Your task to perform on an android device: Play the last video I watched on Youtube Image 0: 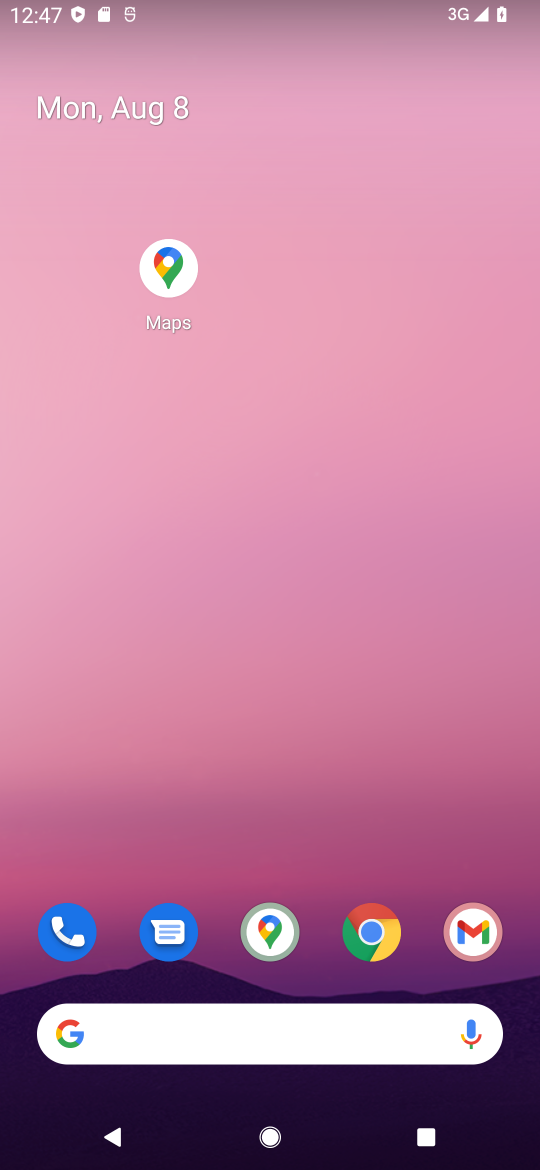
Step 0: drag from (324, 894) to (358, 312)
Your task to perform on an android device: Play the last video I watched on Youtube Image 1: 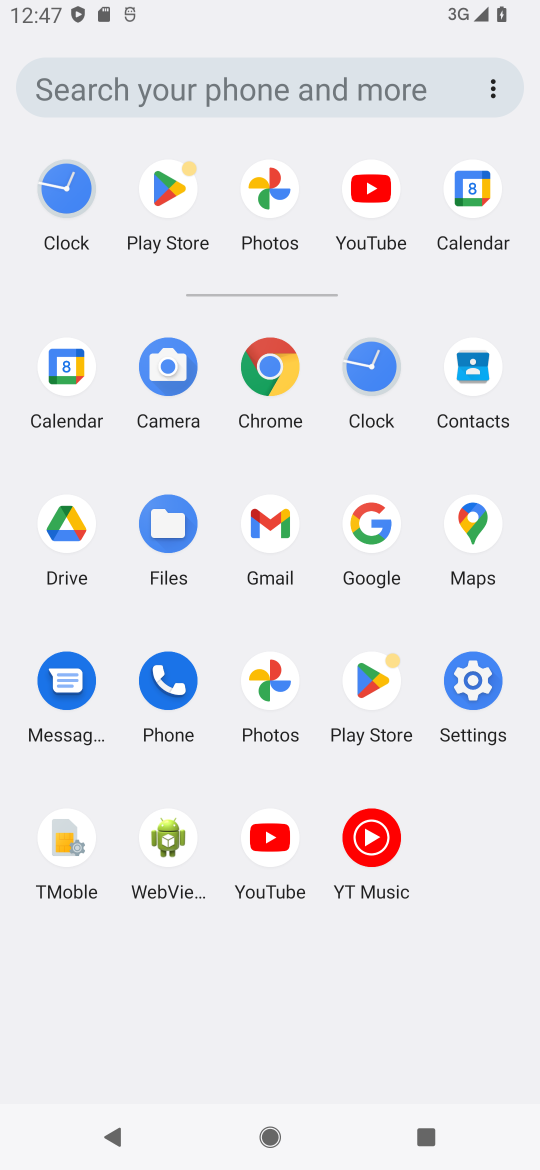
Step 1: click (256, 865)
Your task to perform on an android device: Play the last video I watched on Youtube Image 2: 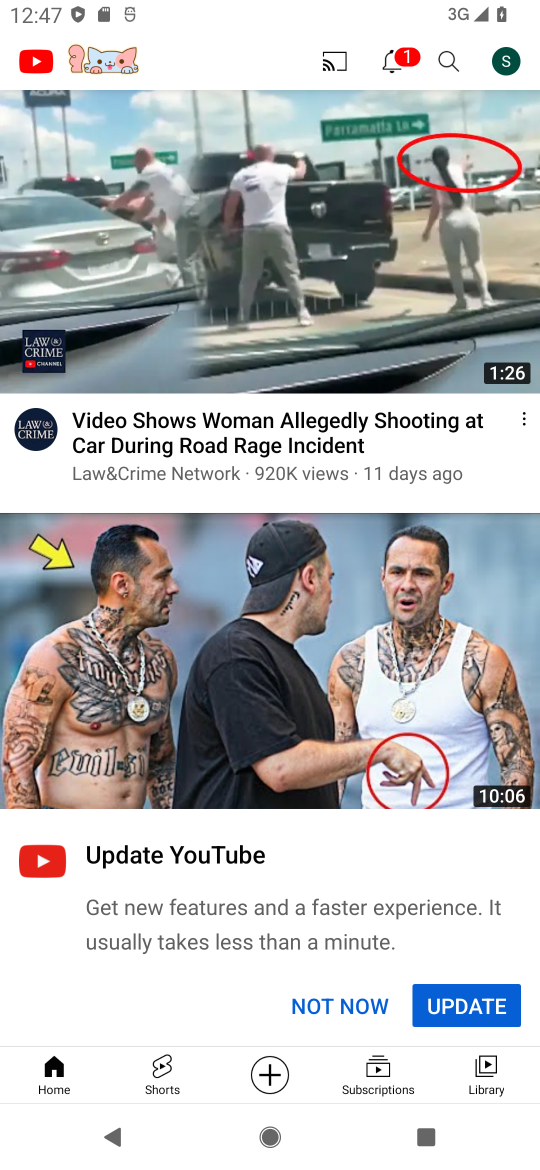
Step 2: click (351, 1049)
Your task to perform on an android device: Play the last video I watched on Youtube Image 3: 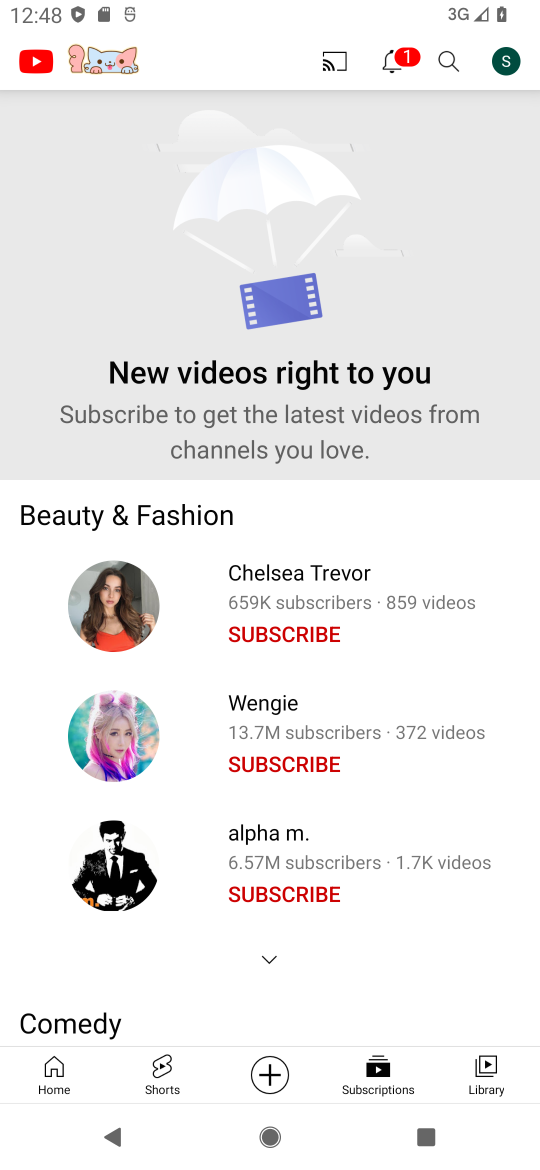
Step 3: click (504, 1074)
Your task to perform on an android device: Play the last video I watched on Youtube Image 4: 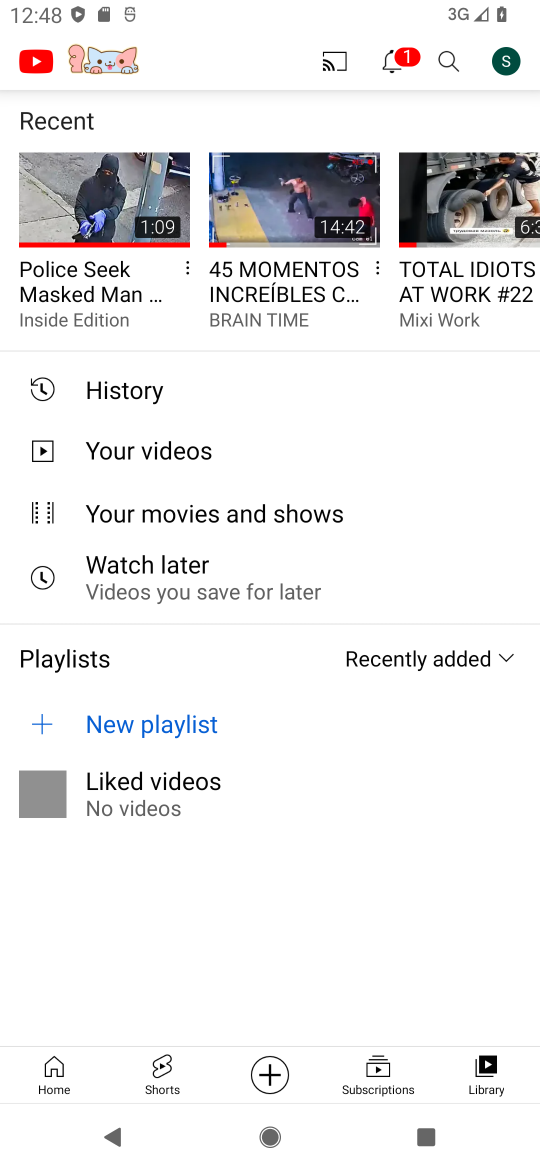
Step 4: click (483, 1079)
Your task to perform on an android device: Play the last video I watched on Youtube Image 5: 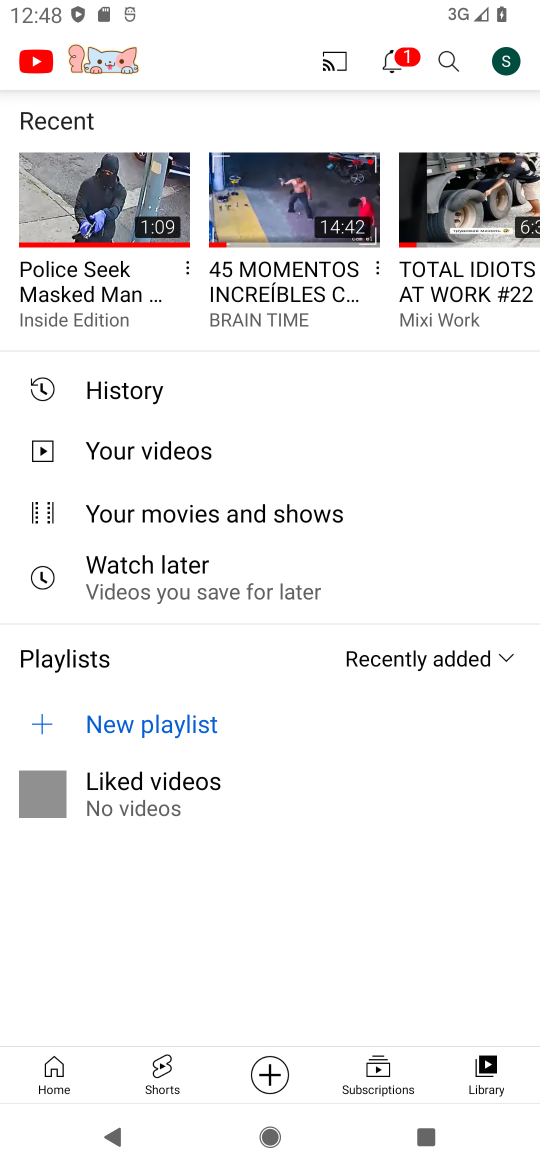
Step 5: click (96, 246)
Your task to perform on an android device: Play the last video I watched on Youtube Image 6: 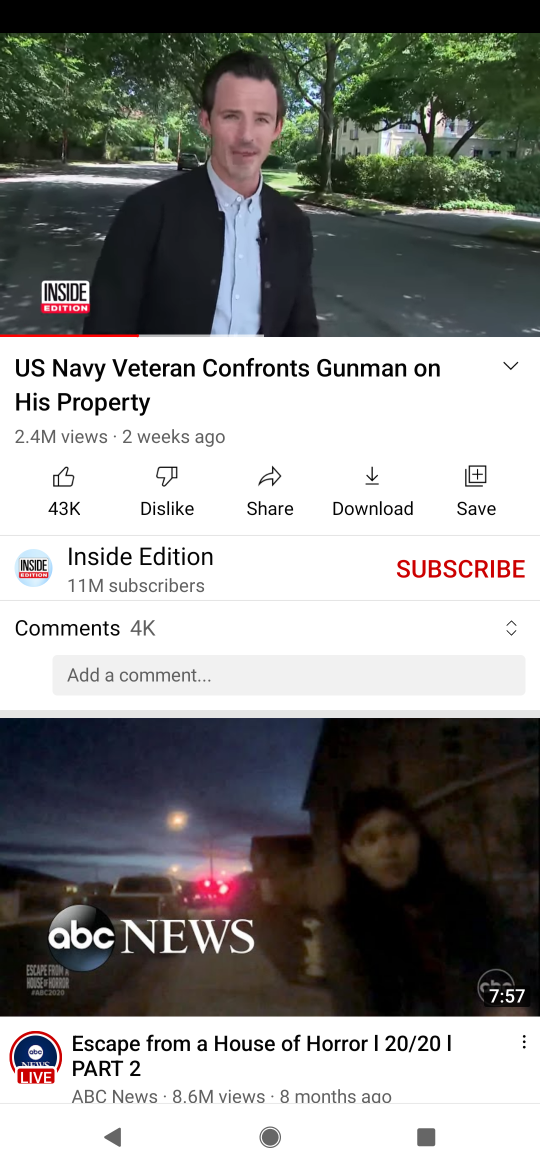
Step 6: task complete